Your task to perform on an android device: Open location settings Image 0: 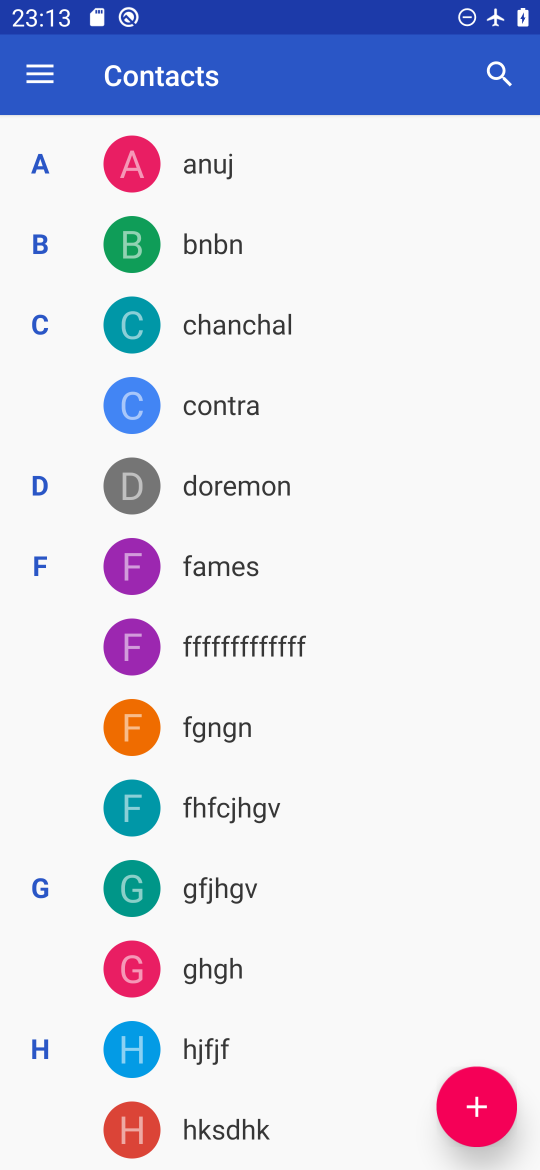
Step 0: press home button
Your task to perform on an android device: Open location settings Image 1: 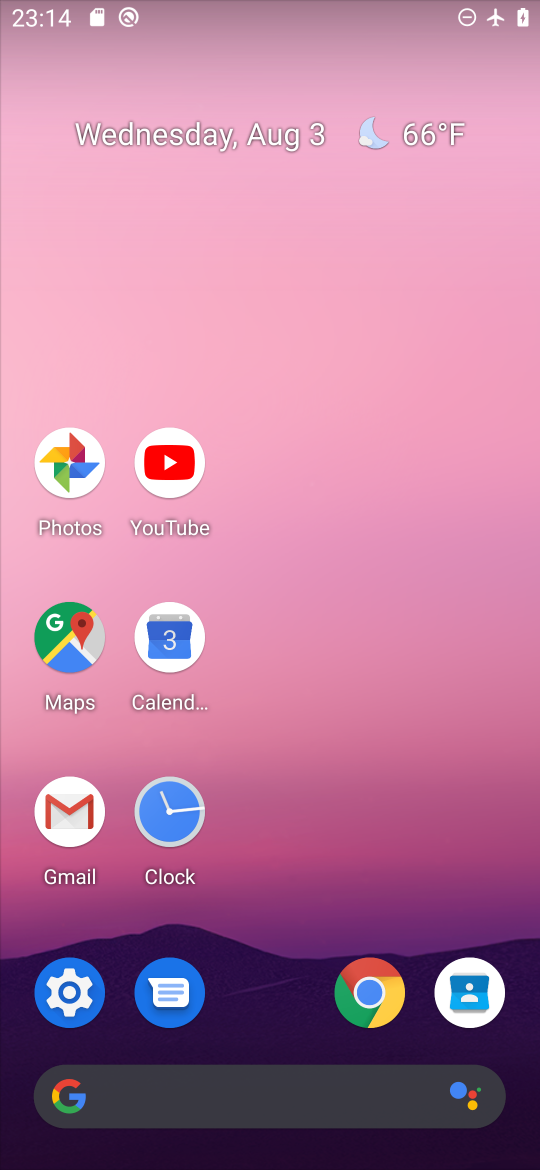
Step 1: click (66, 986)
Your task to perform on an android device: Open location settings Image 2: 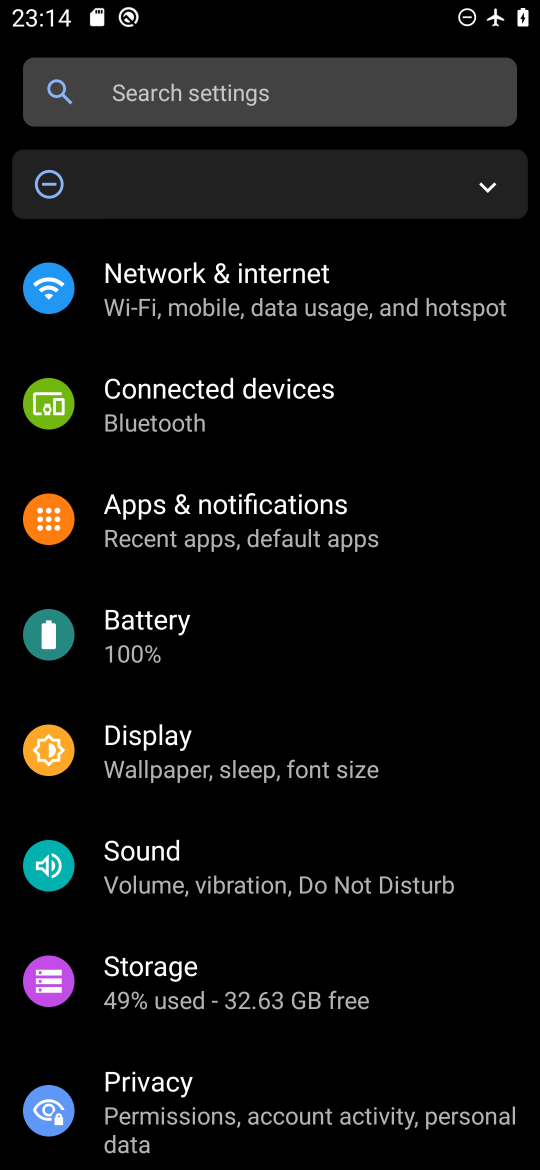
Step 2: drag from (333, 1062) to (303, 535)
Your task to perform on an android device: Open location settings Image 3: 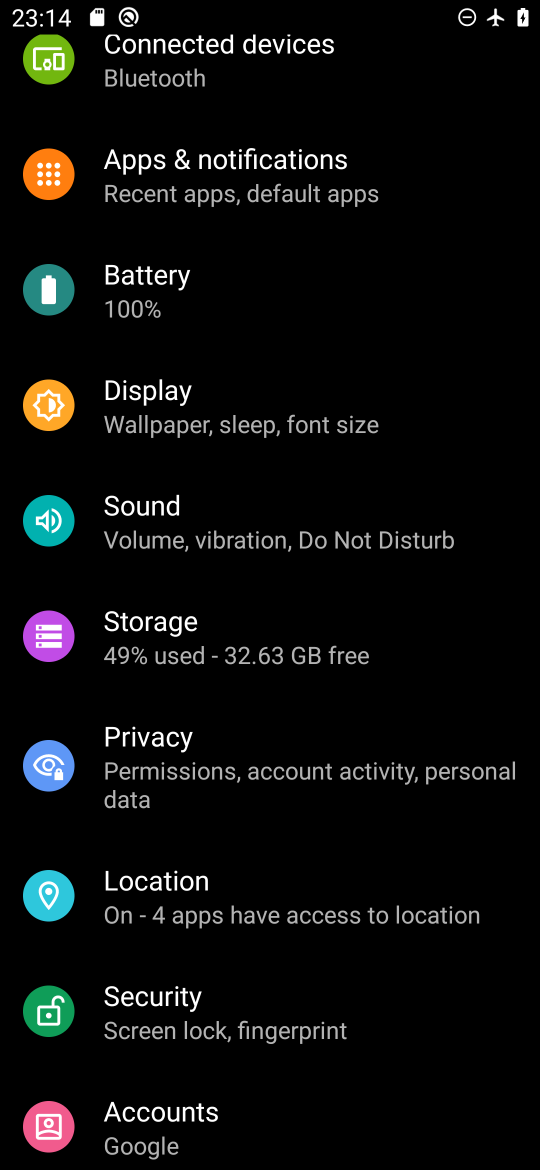
Step 3: click (174, 884)
Your task to perform on an android device: Open location settings Image 4: 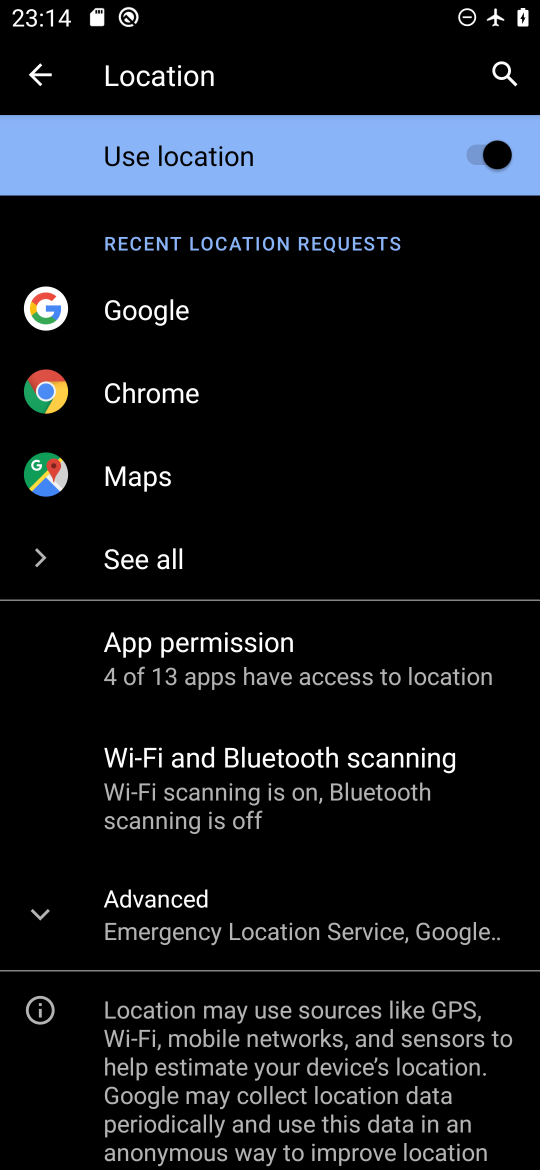
Step 4: task complete